Your task to perform on an android device: Open sound settings Image 0: 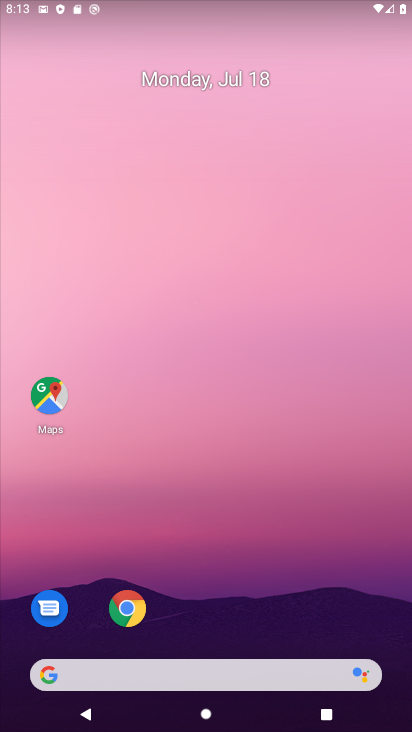
Step 0: drag from (275, 48) to (403, 560)
Your task to perform on an android device: Open sound settings Image 1: 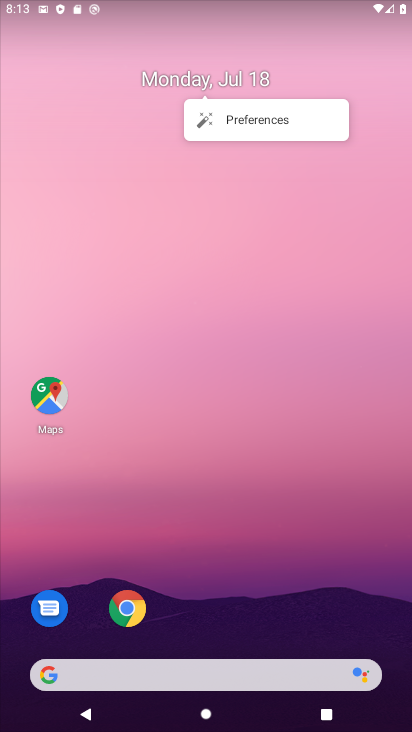
Step 1: drag from (343, 578) to (255, 273)
Your task to perform on an android device: Open sound settings Image 2: 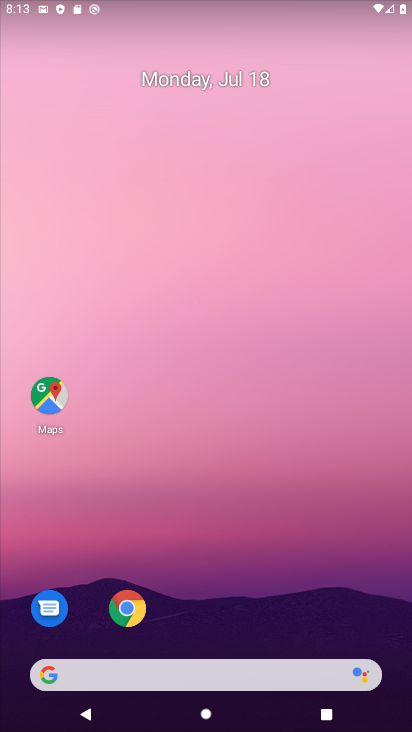
Step 2: drag from (300, 573) to (291, 22)
Your task to perform on an android device: Open sound settings Image 3: 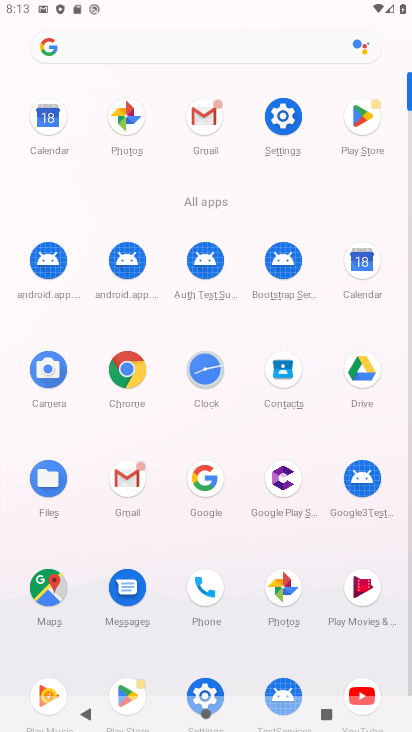
Step 3: click (280, 113)
Your task to perform on an android device: Open sound settings Image 4: 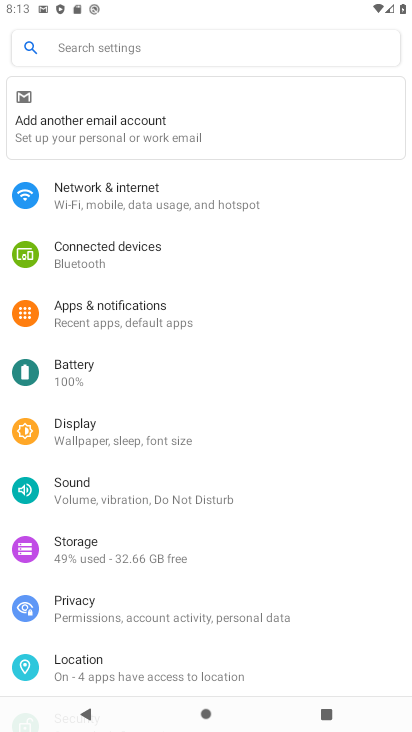
Step 4: click (117, 497)
Your task to perform on an android device: Open sound settings Image 5: 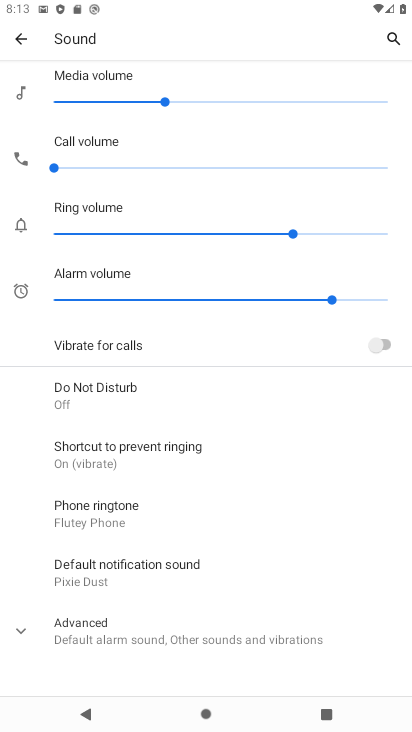
Step 5: task complete